Your task to perform on an android device: Go to Reddit.com Image 0: 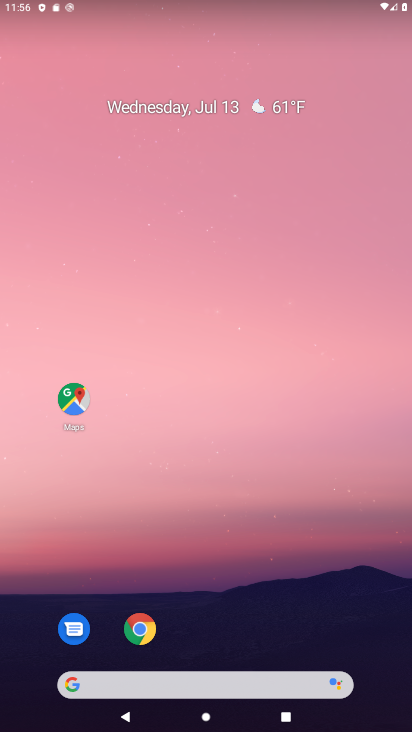
Step 0: drag from (247, 574) to (191, 195)
Your task to perform on an android device: Go to Reddit.com Image 1: 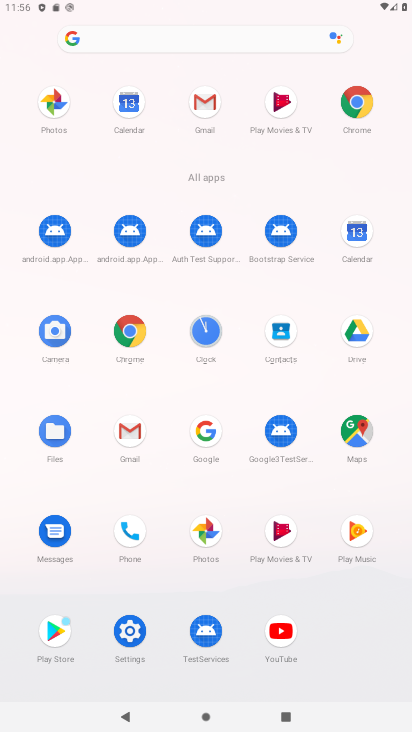
Step 1: click (361, 100)
Your task to perform on an android device: Go to Reddit.com Image 2: 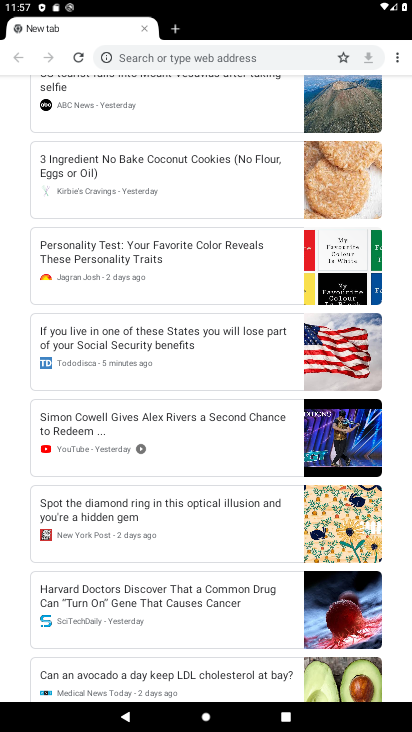
Step 2: click (395, 61)
Your task to perform on an android device: Go to Reddit.com Image 3: 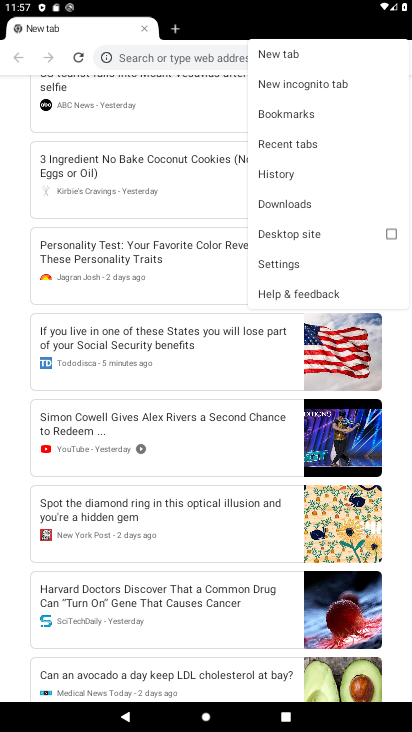
Step 3: click (278, 55)
Your task to perform on an android device: Go to Reddit.com Image 4: 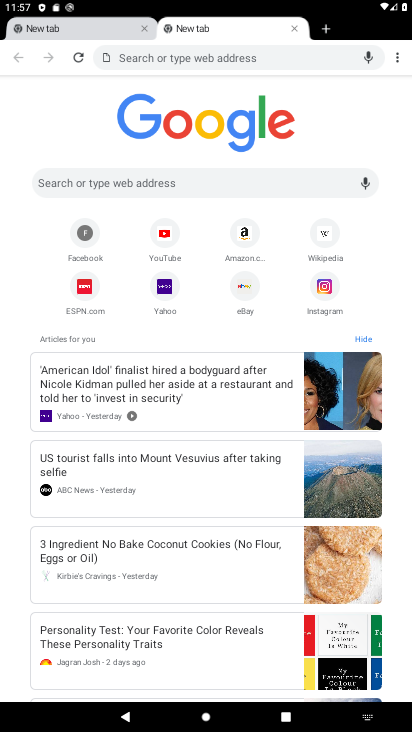
Step 4: click (151, 178)
Your task to perform on an android device: Go to Reddit.com Image 5: 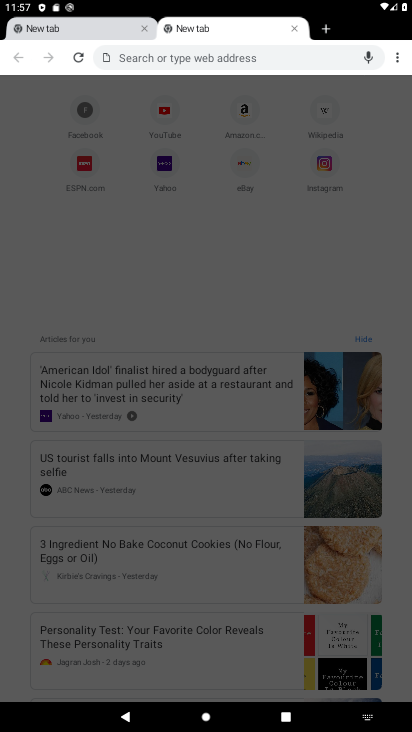
Step 5: type "reddit.com"
Your task to perform on an android device: Go to Reddit.com Image 6: 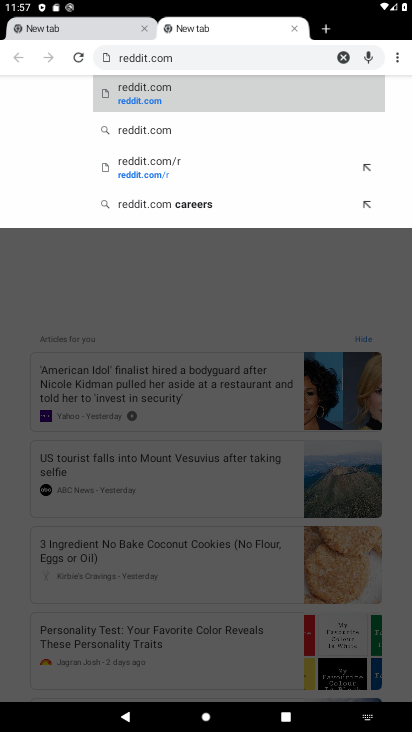
Step 6: click (158, 96)
Your task to perform on an android device: Go to Reddit.com Image 7: 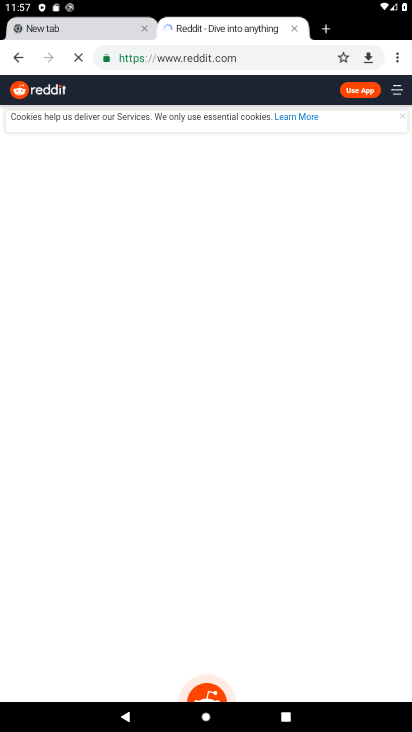
Step 7: task complete